Your task to perform on an android device: What's the weather going to be tomorrow? Image 0: 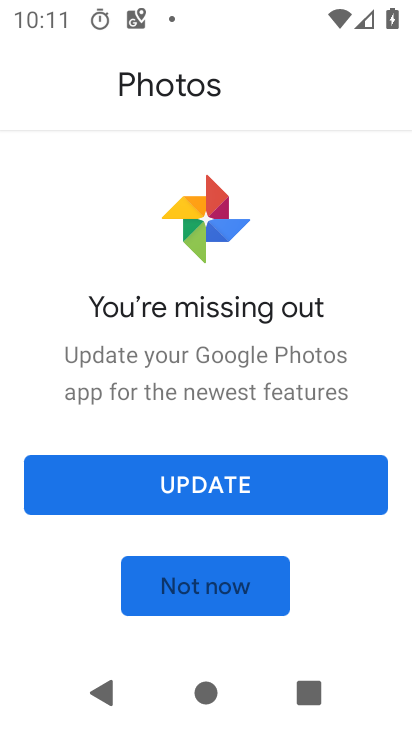
Step 0: press home button
Your task to perform on an android device: What's the weather going to be tomorrow? Image 1: 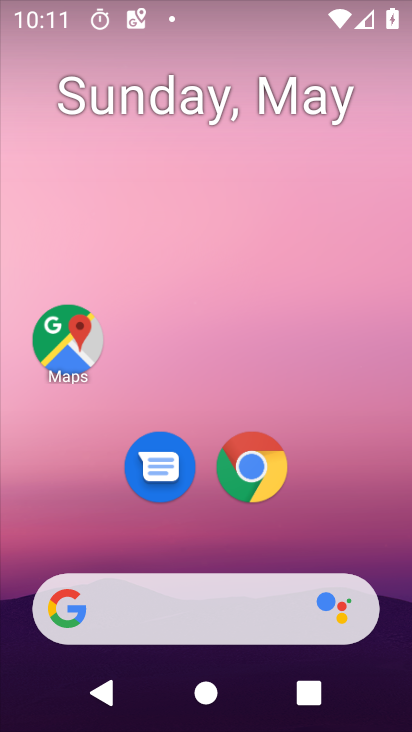
Step 1: drag from (196, 549) to (174, 203)
Your task to perform on an android device: What's the weather going to be tomorrow? Image 2: 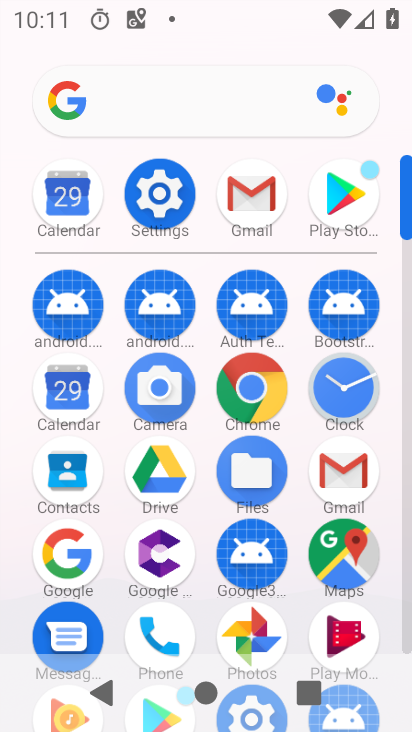
Step 2: click (55, 524)
Your task to perform on an android device: What's the weather going to be tomorrow? Image 3: 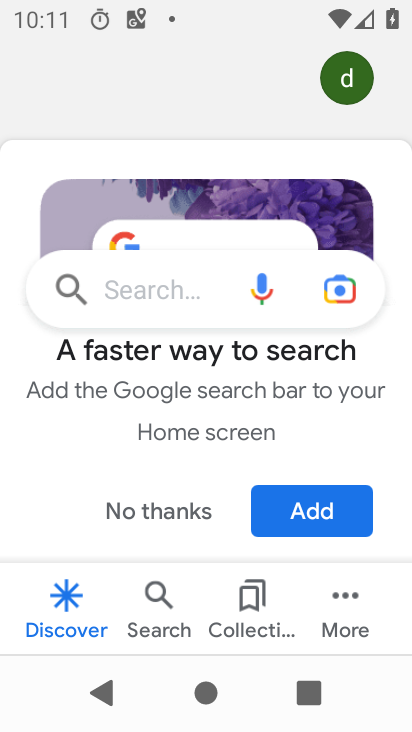
Step 3: drag from (141, 486) to (172, 245)
Your task to perform on an android device: What's the weather going to be tomorrow? Image 4: 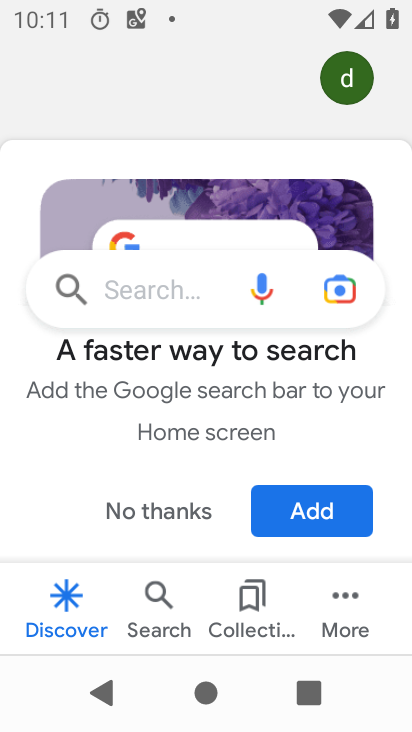
Step 4: click (166, 310)
Your task to perform on an android device: What's the weather going to be tomorrow? Image 5: 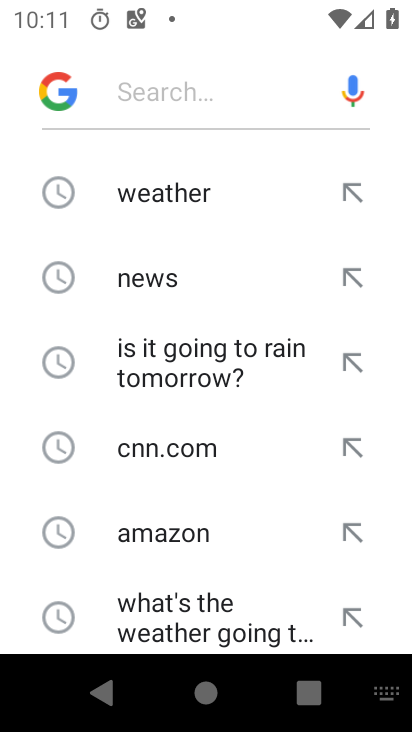
Step 5: click (149, 207)
Your task to perform on an android device: What's the weather going to be tomorrow? Image 6: 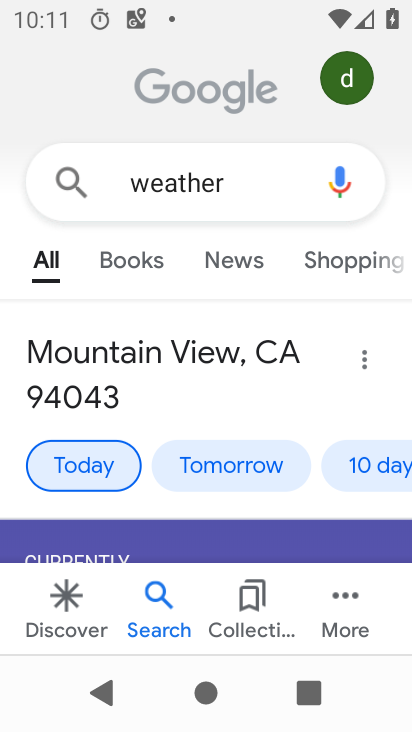
Step 6: drag from (204, 539) to (215, 283)
Your task to perform on an android device: What's the weather going to be tomorrow? Image 7: 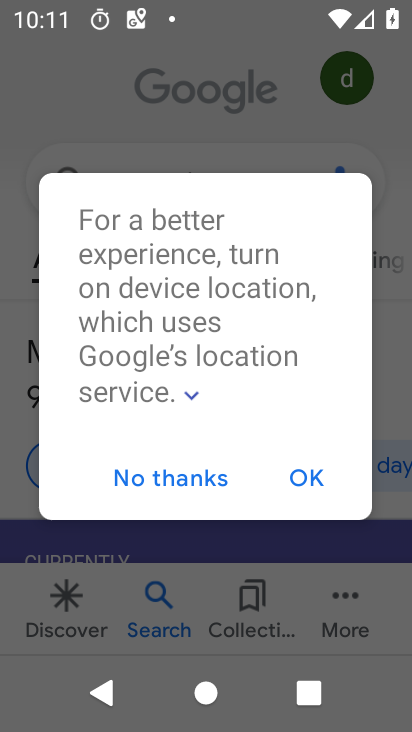
Step 7: click (208, 471)
Your task to perform on an android device: What's the weather going to be tomorrow? Image 8: 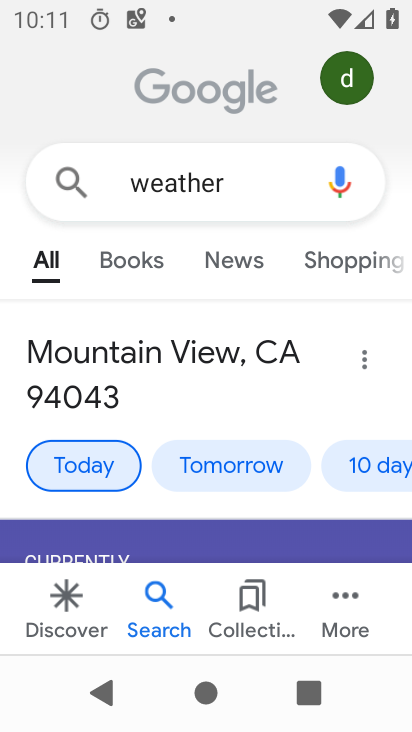
Step 8: drag from (214, 498) to (223, 169)
Your task to perform on an android device: What's the weather going to be tomorrow? Image 9: 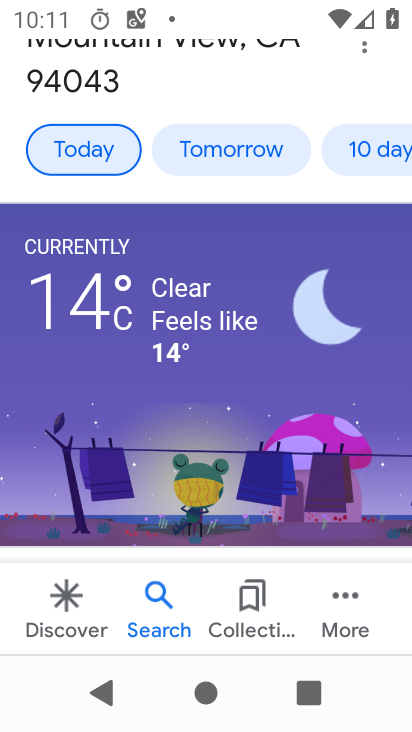
Step 9: drag from (201, 393) to (208, 264)
Your task to perform on an android device: What's the weather going to be tomorrow? Image 10: 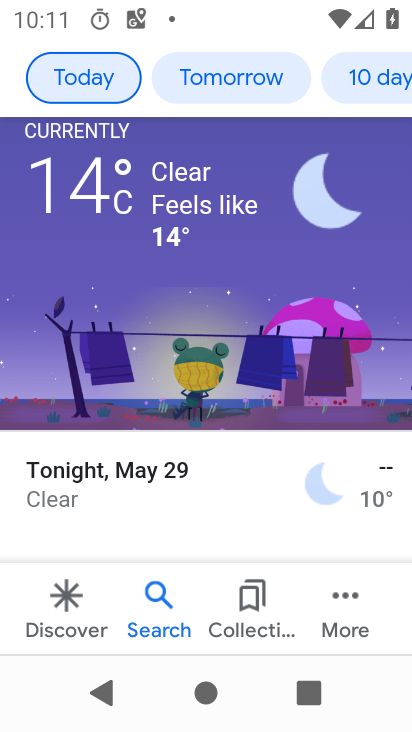
Step 10: click (234, 69)
Your task to perform on an android device: What's the weather going to be tomorrow? Image 11: 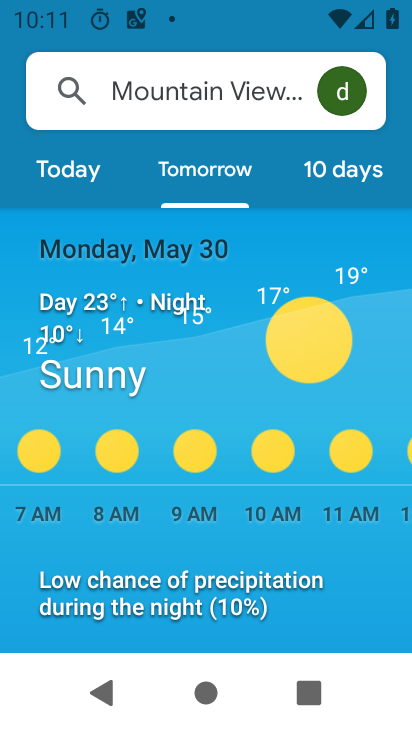
Step 11: task complete